Your task to perform on an android device: toggle javascript in the chrome app Image 0: 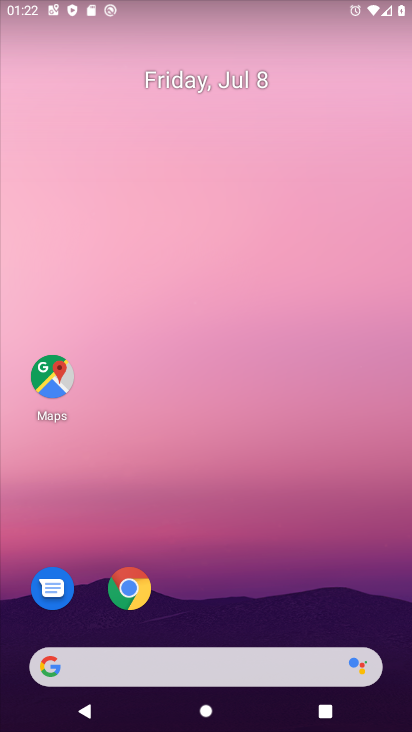
Step 0: drag from (216, 597) to (158, 26)
Your task to perform on an android device: toggle javascript in the chrome app Image 1: 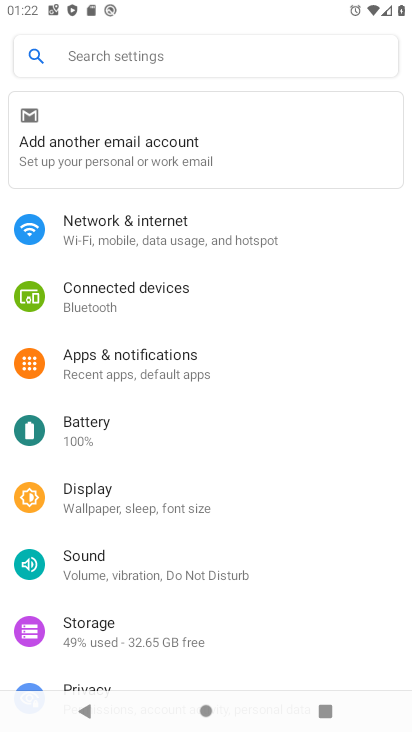
Step 1: press home button
Your task to perform on an android device: toggle javascript in the chrome app Image 2: 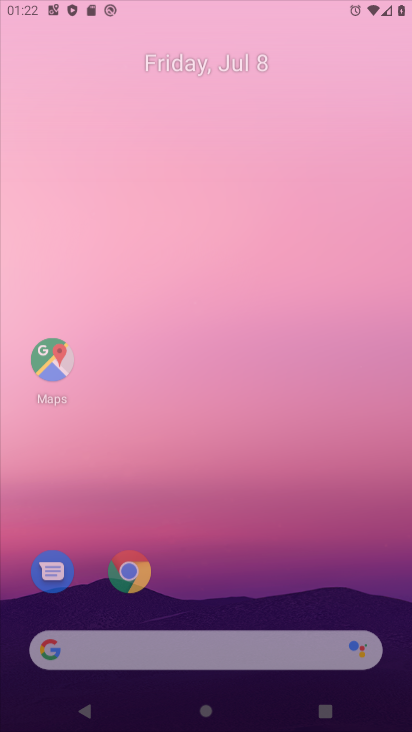
Step 2: drag from (250, 575) to (238, 229)
Your task to perform on an android device: toggle javascript in the chrome app Image 3: 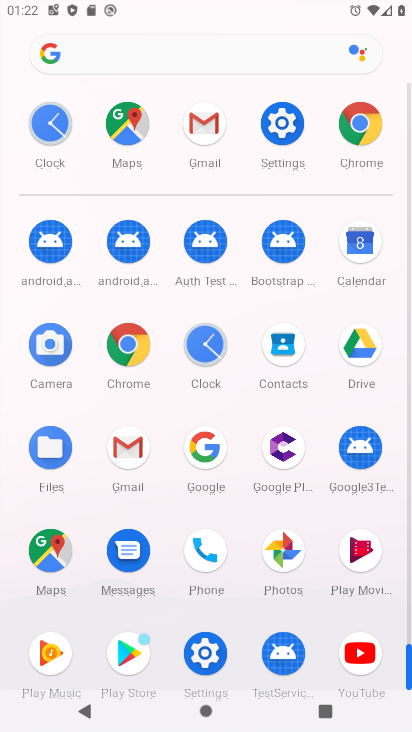
Step 3: click (137, 350)
Your task to perform on an android device: toggle javascript in the chrome app Image 4: 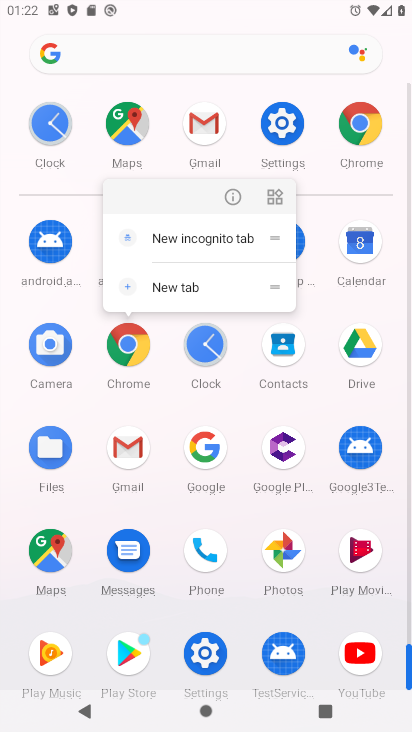
Step 4: click (229, 195)
Your task to perform on an android device: toggle javascript in the chrome app Image 5: 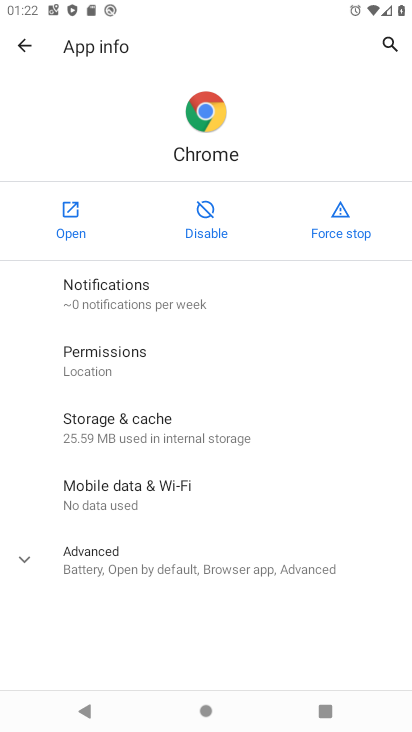
Step 5: click (80, 246)
Your task to perform on an android device: toggle javascript in the chrome app Image 6: 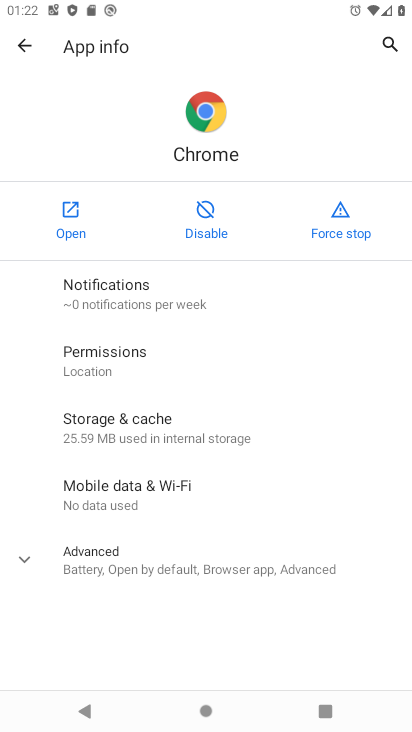
Step 6: click (77, 239)
Your task to perform on an android device: toggle javascript in the chrome app Image 7: 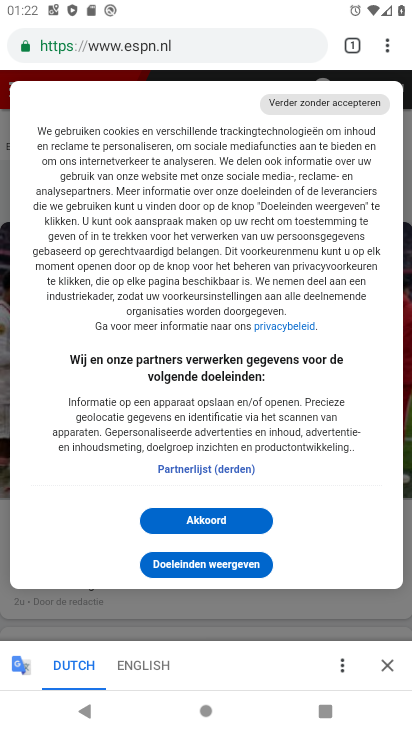
Step 7: click (393, 49)
Your task to perform on an android device: toggle javascript in the chrome app Image 8: 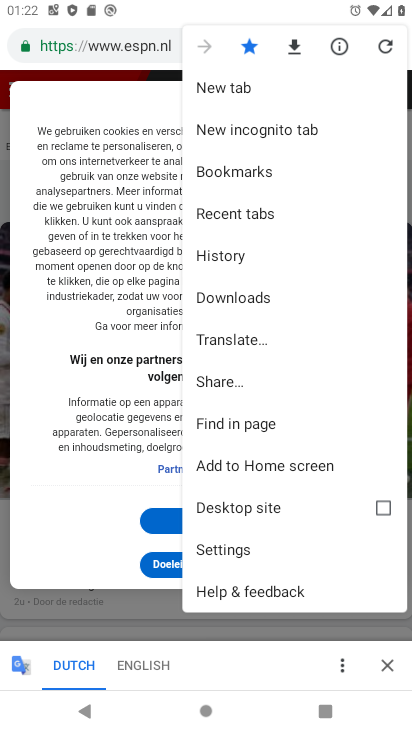
Step 8: click (233, 548)
Your task to perform on an android device: toggle javascript in the chrome app Image 9: 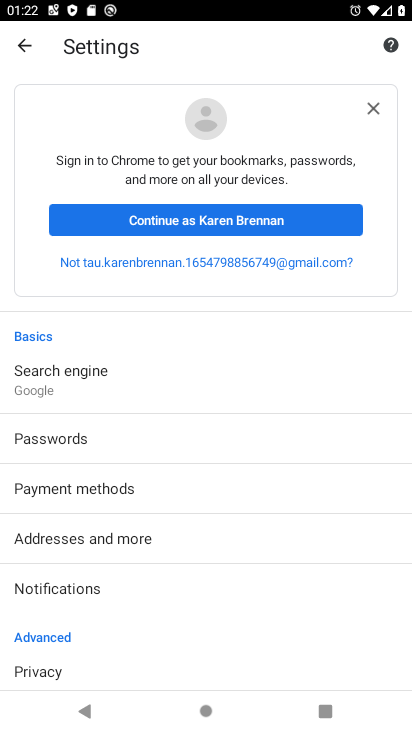
Step 9: drag from (159, 502) to (150, 182)
Your task to perform on an android device: toggle javascript in the chrome app Image 10: 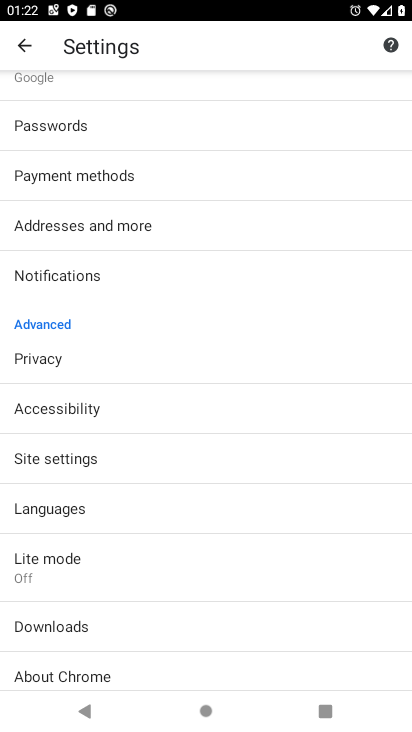
Step 10: click (101, 462)
Your task to perform on an android device: toggle javascript in the chrome app Image 11: 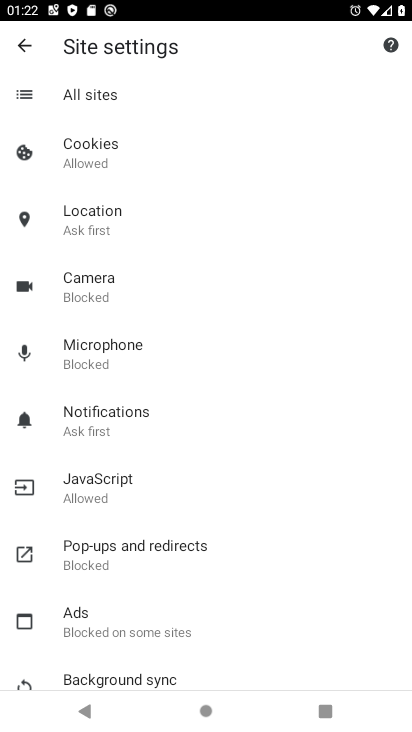
Step 11: click (137, 486)
Your task to perform on an android device: toggle javascript in the chrome app Image 12: 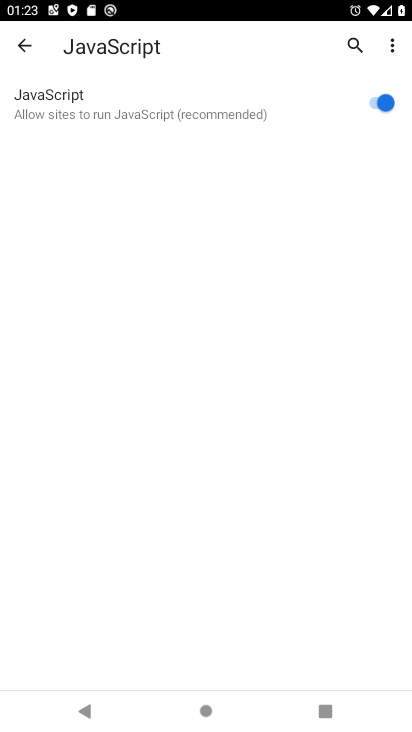
Step 12: click (378, 96)
Your task to perform on an android device: toggle javascript in the chrome app Image 13: 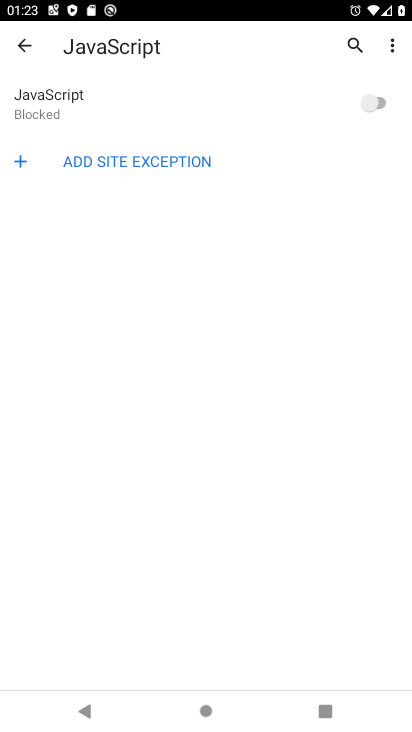
Step 13: task complete